Your task to perform on an android device: Open CNN.com Image 0: 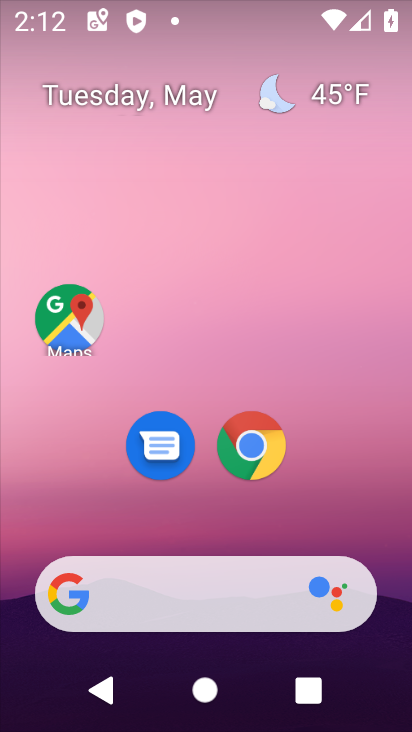
Step 0: click (263, 444)
Your task to perform on an android device: Open CNN.com Image 1: 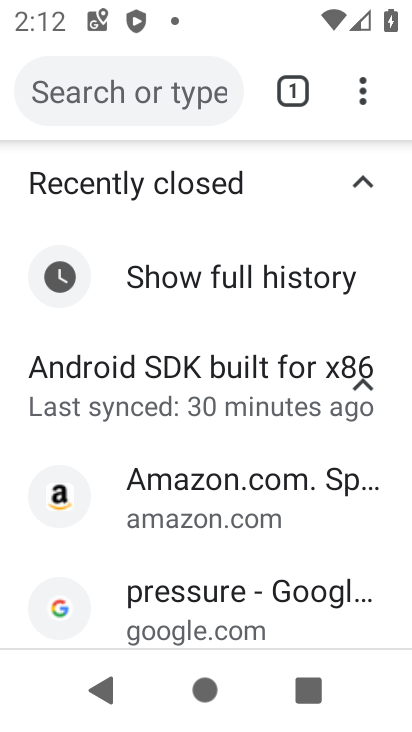
Step 1: click (298, 79)
Your task to perform on an android device: Open CNN.com Image 2: 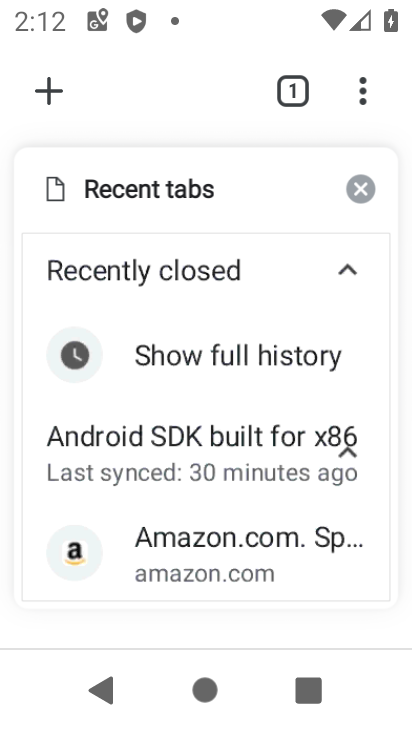
Step 2: click (43, 86)
Your task to perform on an android device: Open CNN.com Image 3: 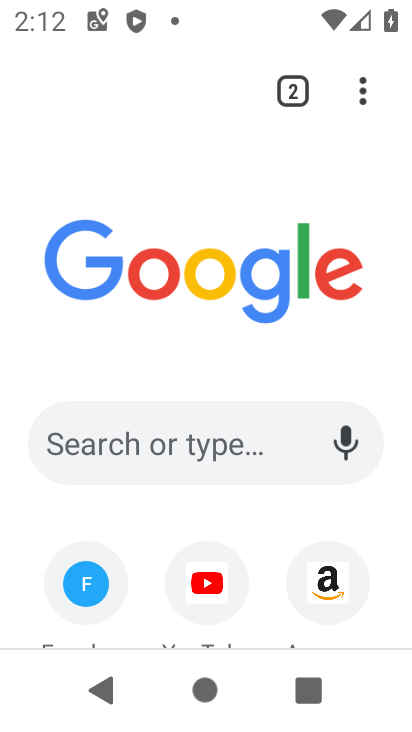
Step 3: drag from (179, 596) to (281, 147)
Your task to perform on an android device: Open CNN.com Image 4: 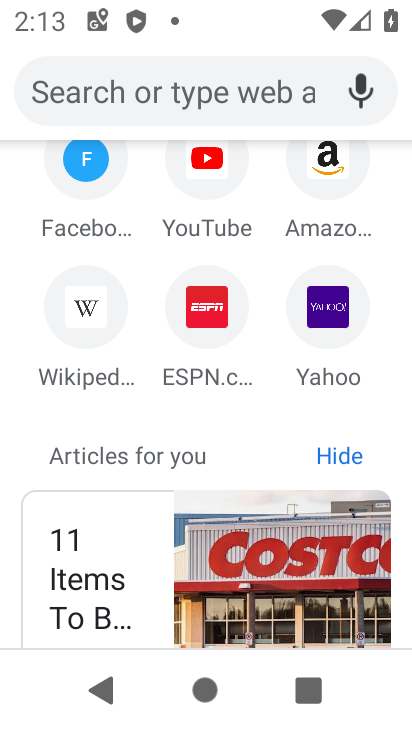
Step 4: click (165, 87)
Your task to perform on an android device: Open CNN.com Image 5: 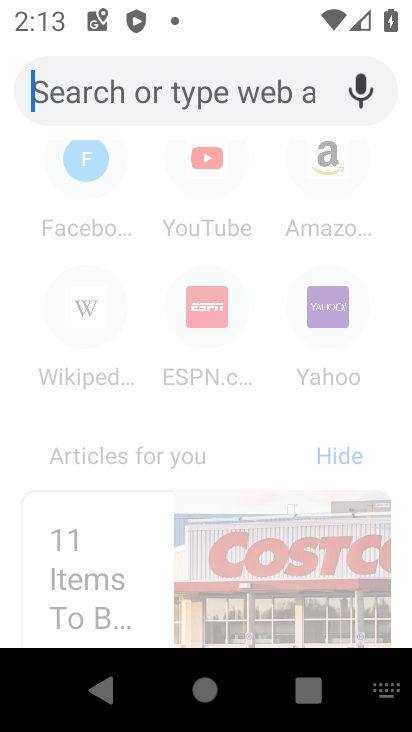
Step 5: type "cnn.com"
Your task to perform on an android device: Open CNN.com Image 6: 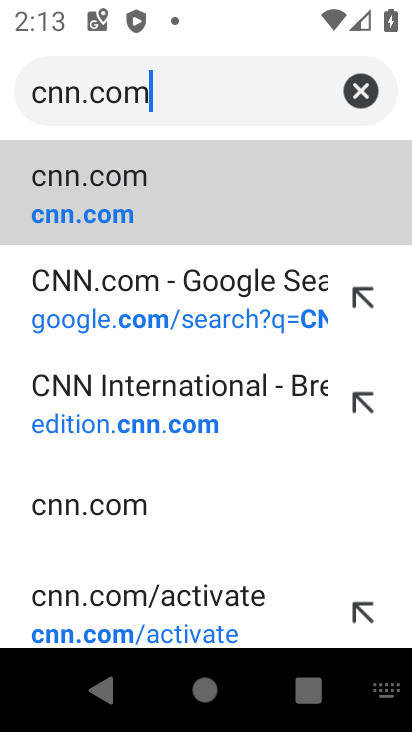
Step 6: click (185, 177)
Your task to perform on an android device: Open CNN.com Image 7: 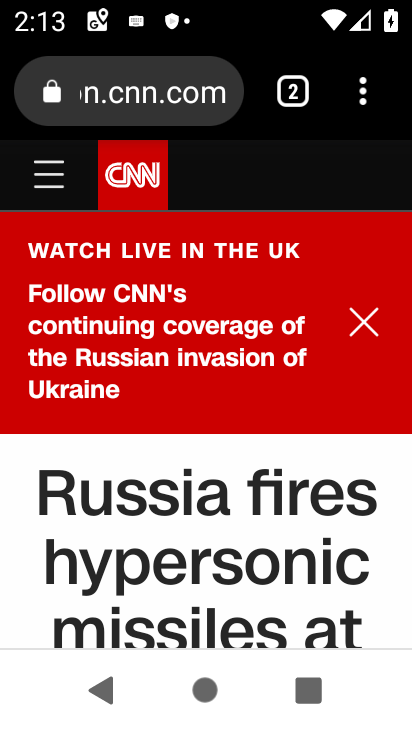
Step 7: task complete